Your task to perform on an android device: Open location settings Image 0: 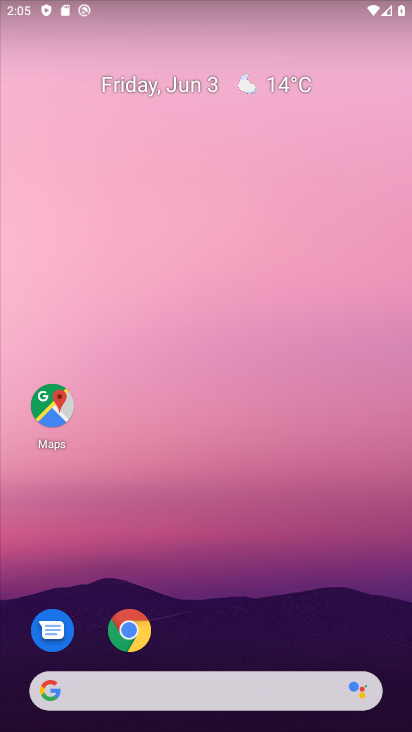
Step 0: drag from (205, 624) to (302, 203)
Your task to perform on an android device: Open location settings Image 1: 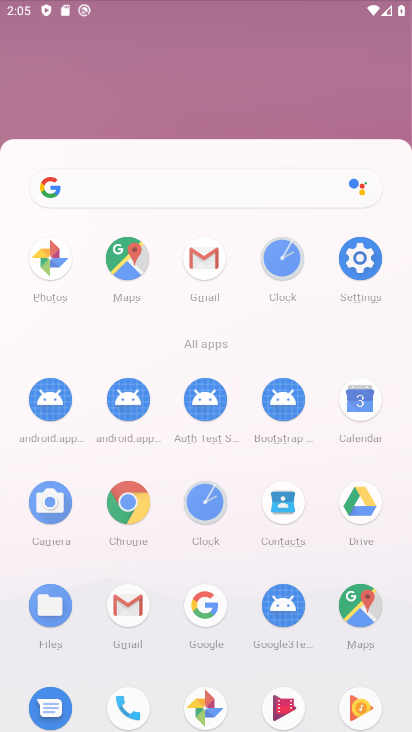
Step 1: drag from (176, 586) to (240, 327)
Your task to perform on an android device: Open location settings Image 2: 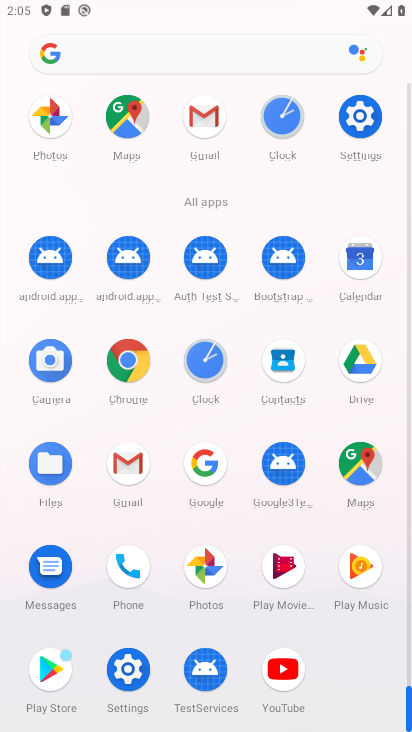
Step 2: click (151, 686)
Your task to perform on an android device: Open location settings Image 3: 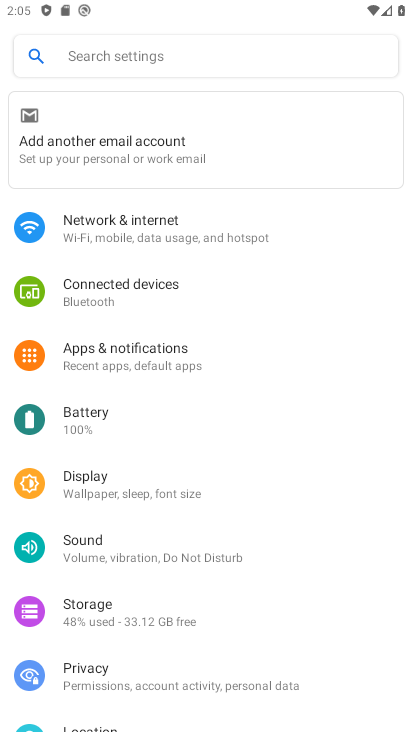
Step 3: drag from (119, 574) to (242, 332)
Your task to perform on an android device: Open location settings Image 4: 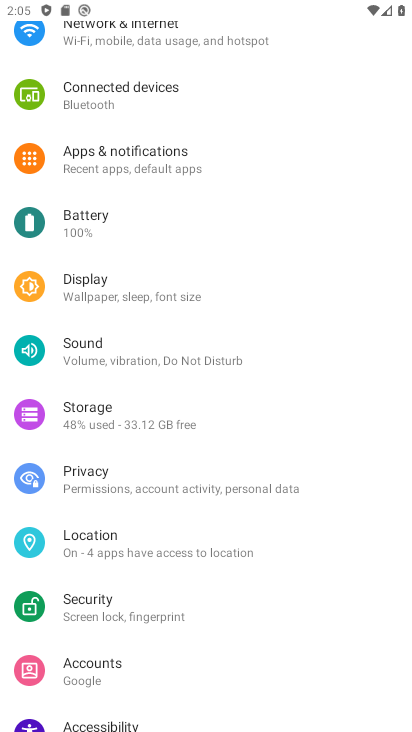
Step 4: click (100, 553)
Your task to perform on an android device: Open location settings Image 5: 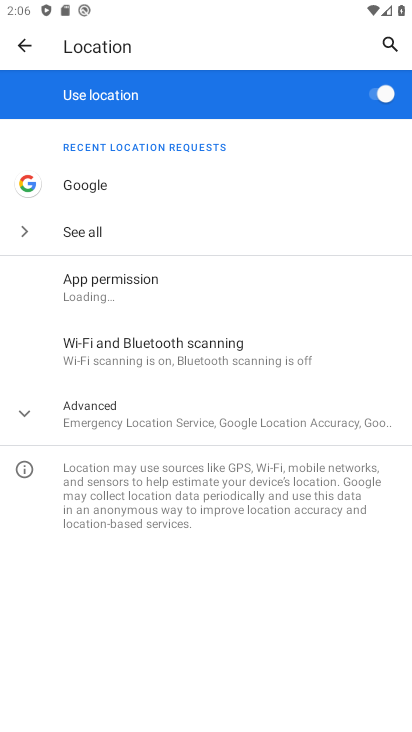
Step 5: task complete